Your task to perform on an android device: add a contact Image 0: 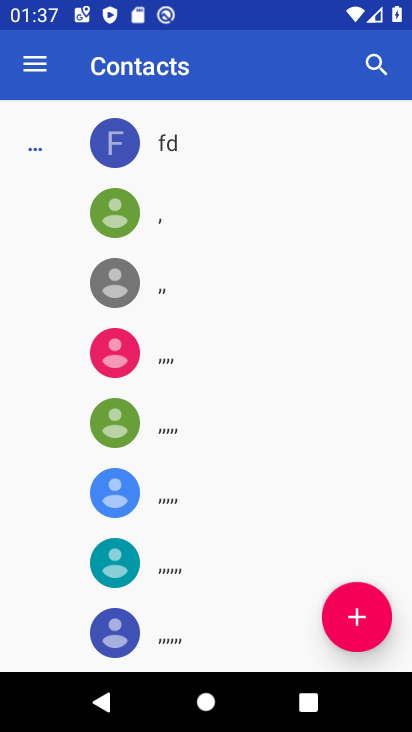
Step 0: click (356, 608)
Your task to perform on an android device: add a contact Image 1: 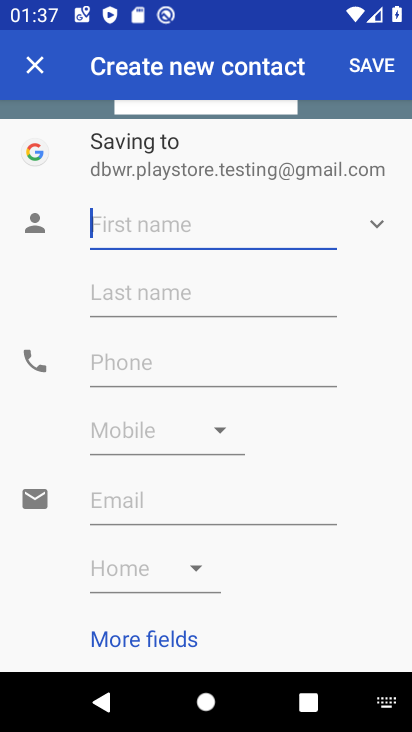
Step 1: type "gvhbn b"
Your task to perform on an android device: add a contact Image 2: 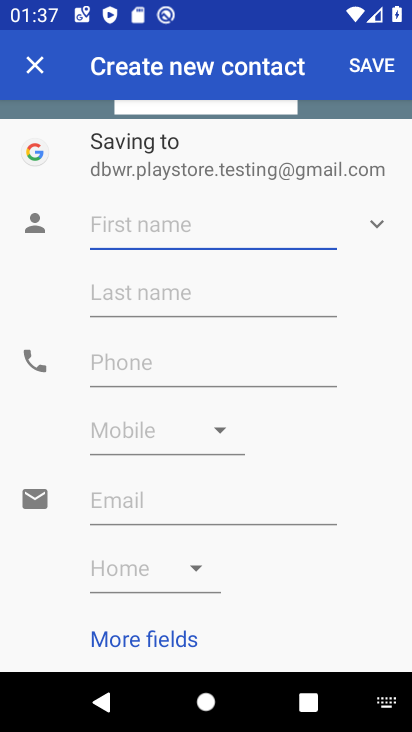
Step 2: click (107, 283)
Your task to perform on an android device: add a contact Image 3: 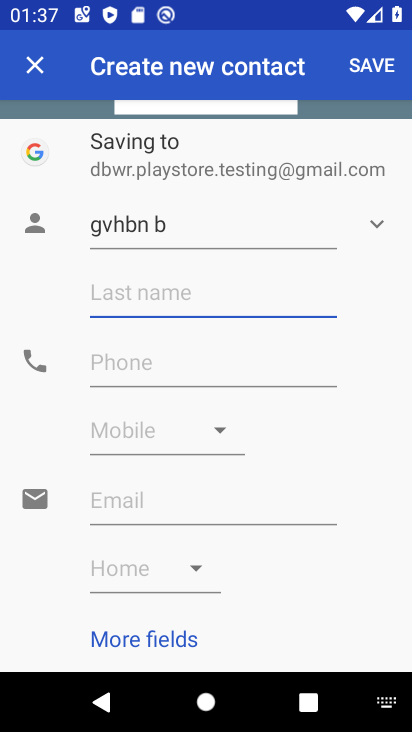
Step 3: type "gcgvhv"
Your task to perform on an android device: add a contact Image 4: 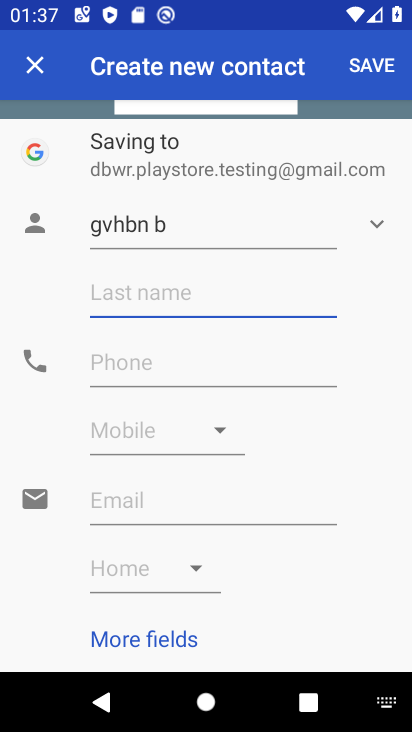
Step 4: click (187, 358)
Your task to perform on an android device: add a contact Image 5: 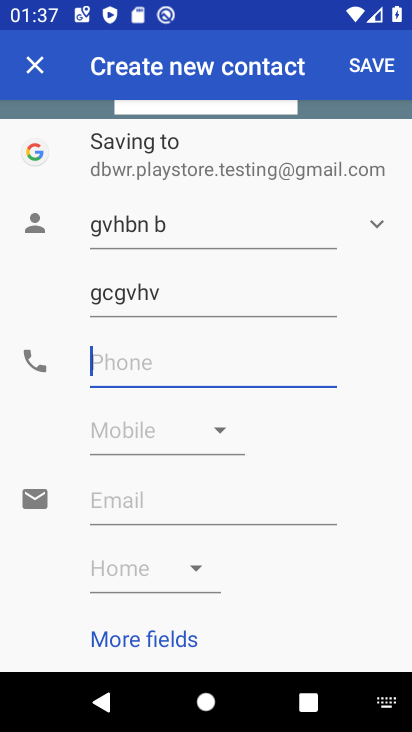
Step 5: type "456876989"
Your task to perform on an android device: add a contact Image 6: 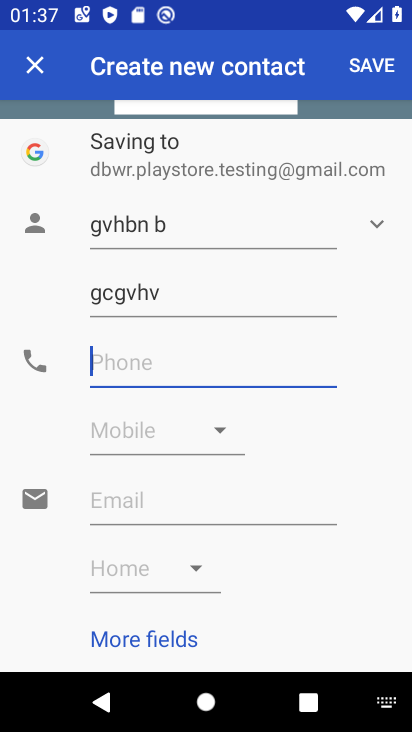
Step 6: click (169, 445)
Your task to perform on an android device: add a contact Image 7: 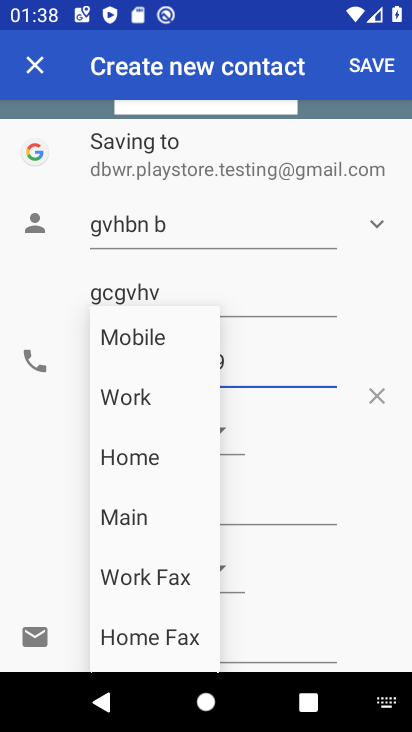
Step 7: click (380, 79)
Your task to perform on an android device: add a contact Image 8: 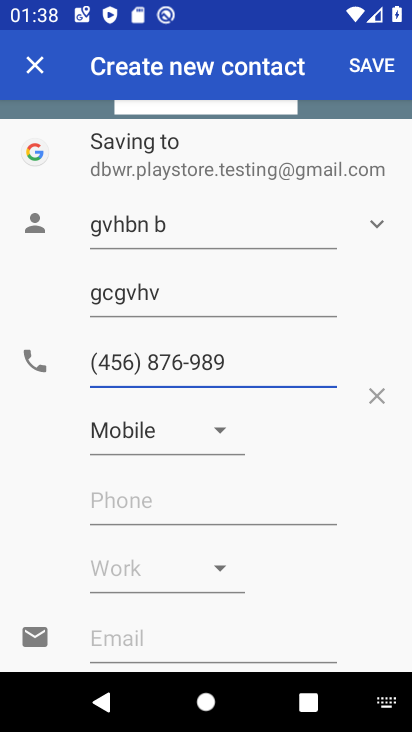
Step 8: click (370, 70)
Your task to perform on an android device: add a contact Image 9: 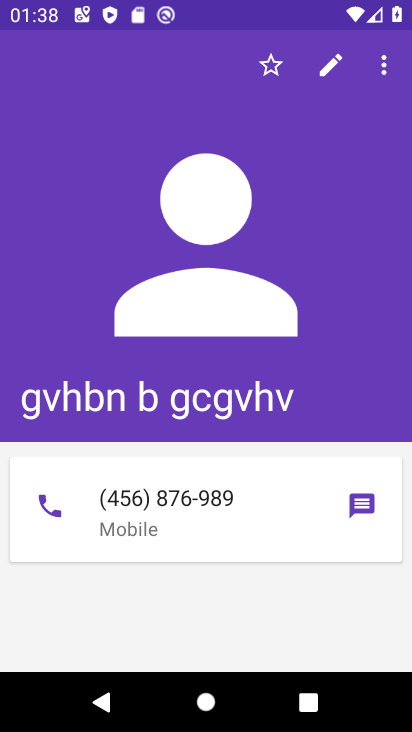
Step 9: task complete